Your task to perform on an android device: turn on notifications settings in the gmail app Image 0: 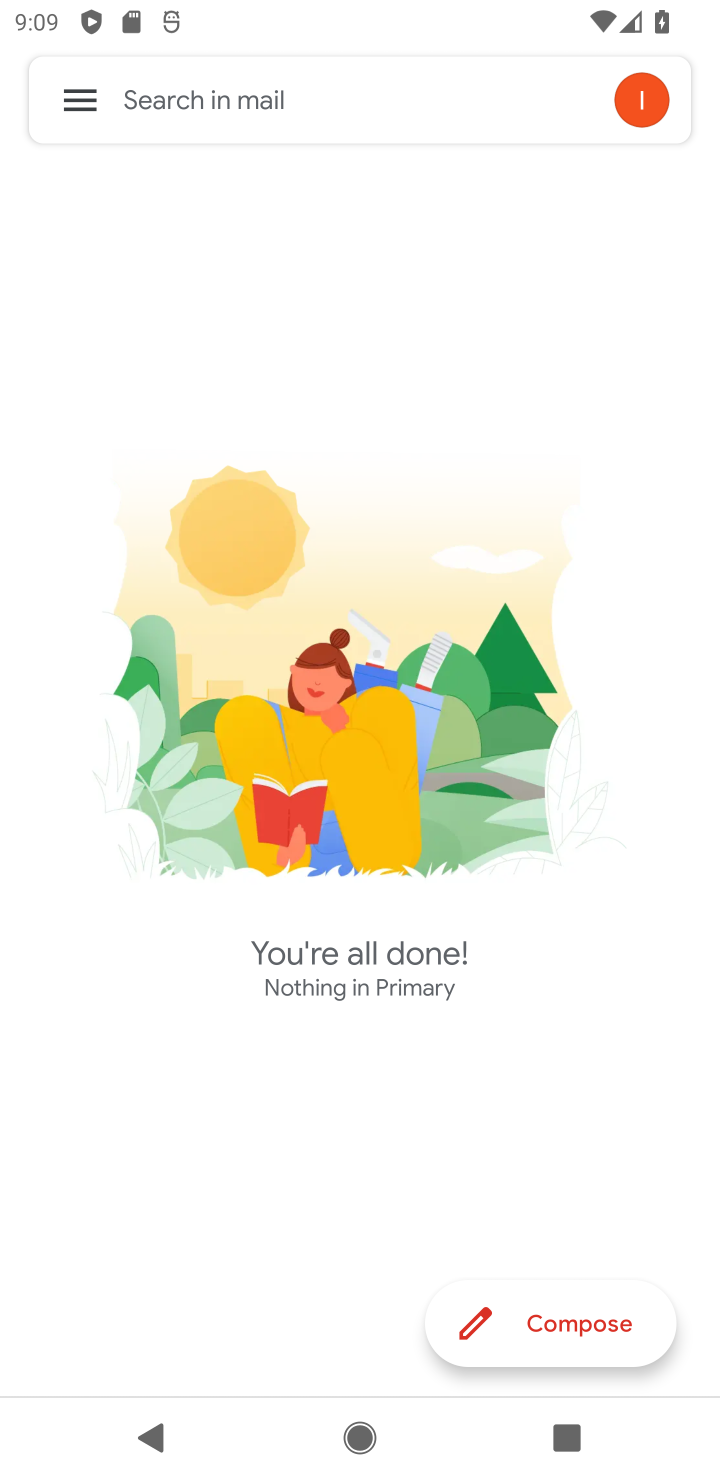
Step 0: press home button
Your task to perform on an android device: turn on notifications settings in the gmail app Image 1: 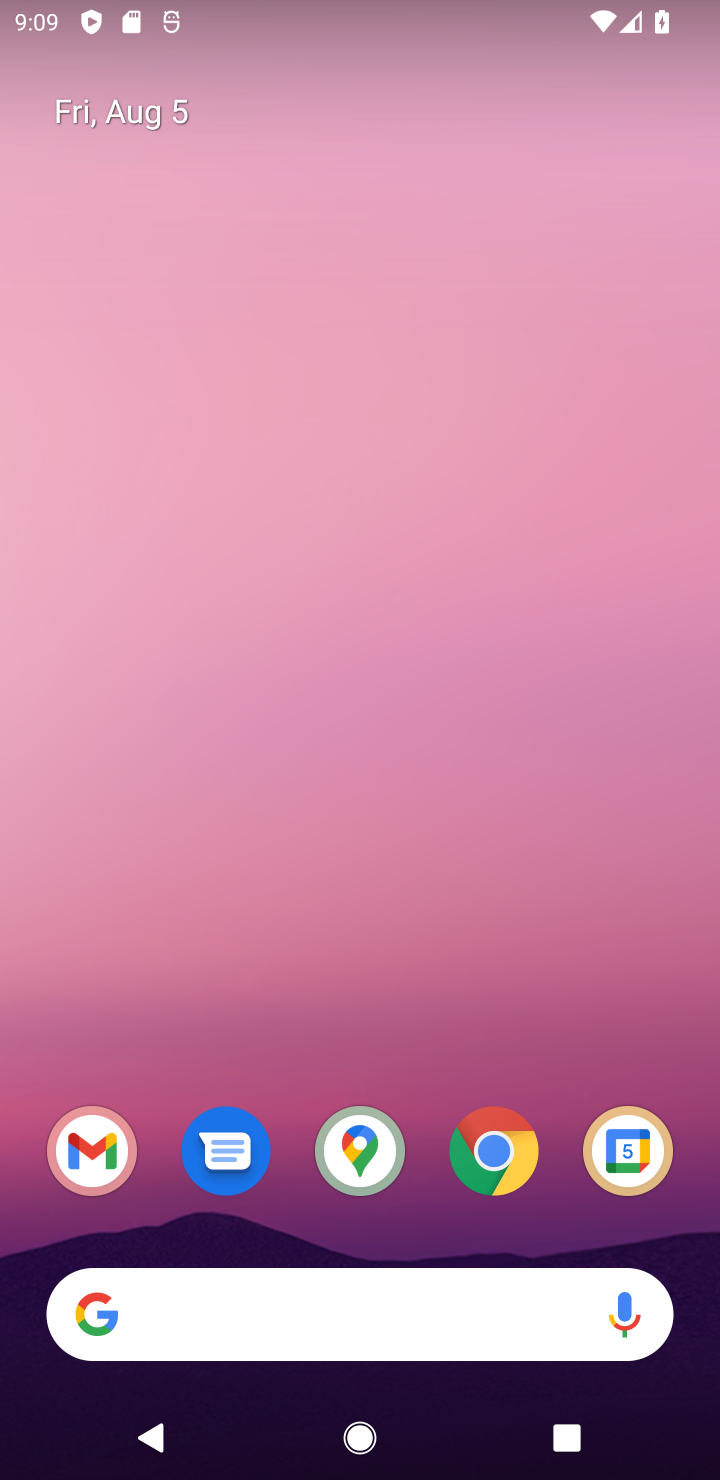
Step 1: click (76, 1143)
Your task to perform on an android device: turn on notifications settings in the gmail app Image 2: 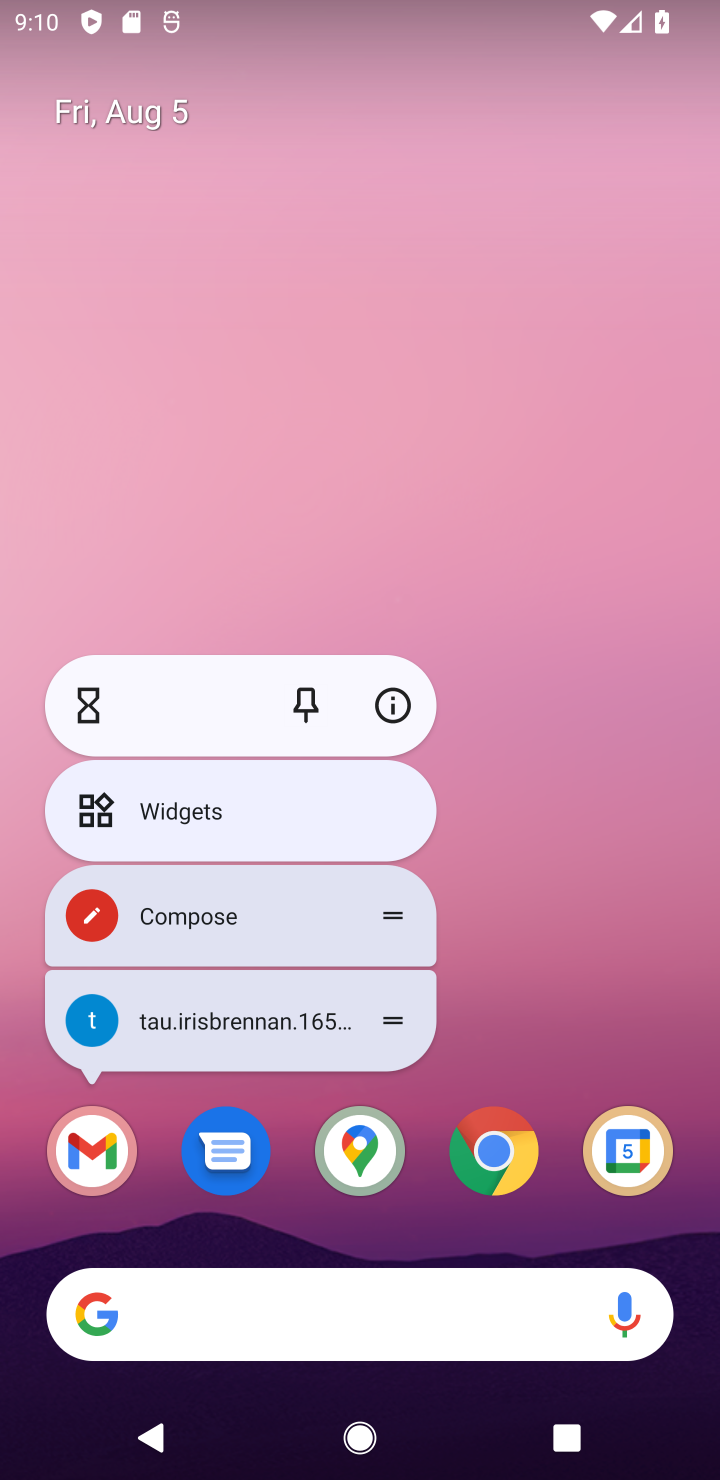
Step 2: click (94, 1157)
Your task to perform on an android device: turn on notifications settings in the gmail app Image 3: 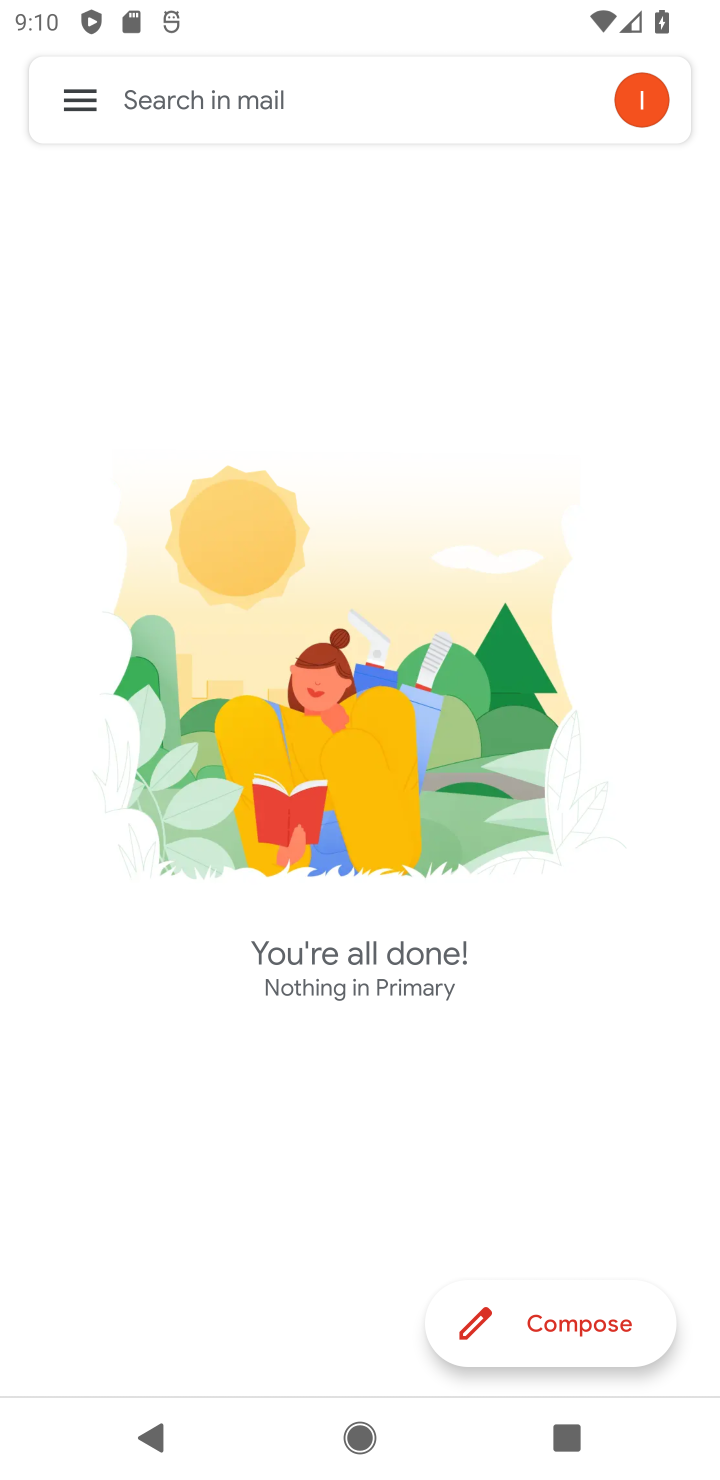
Step 3: click (75, 103)
Your task to perform on an android device: turn on notifications settings in the gmail app Image 4: 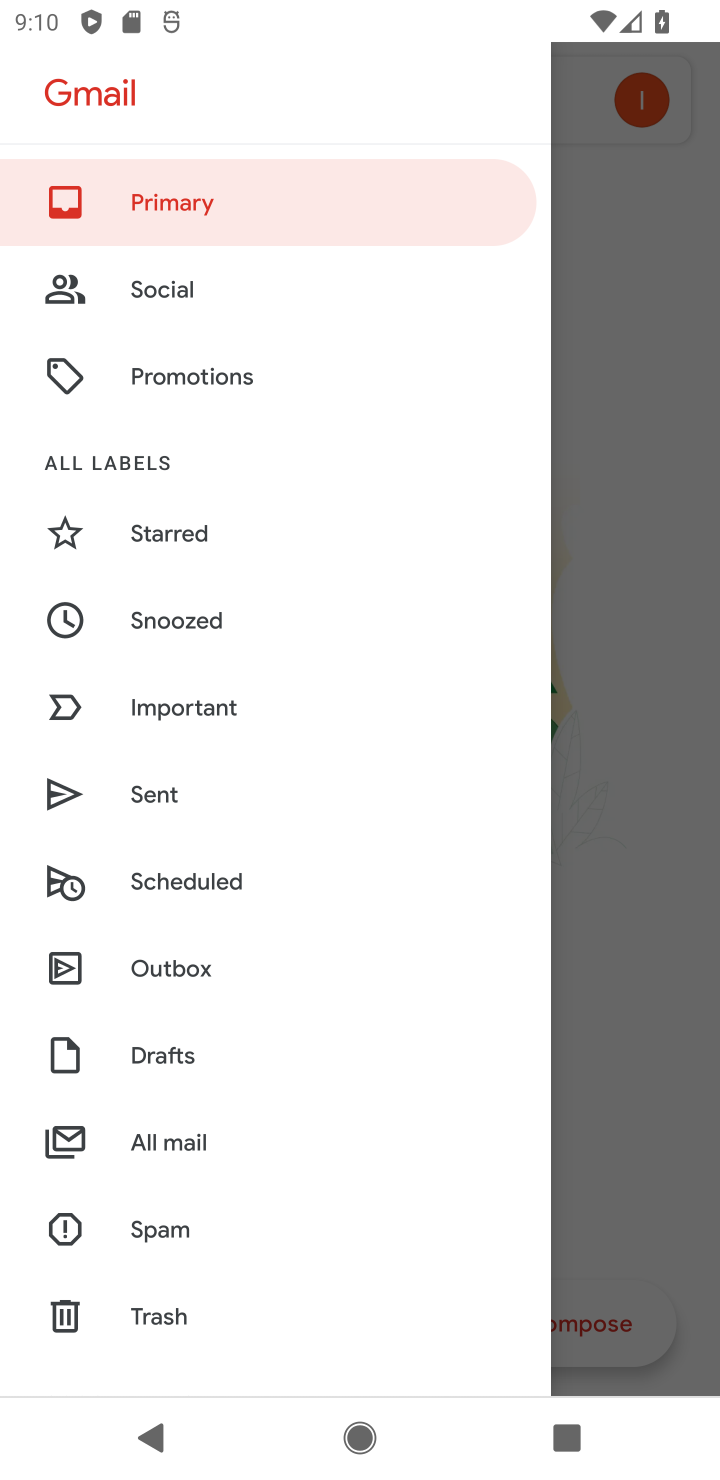
Step 4: drag from (198, 795) to (261, 356)
Your task to perform on an android device: turn on notifications settings in the gmail app Image 5: 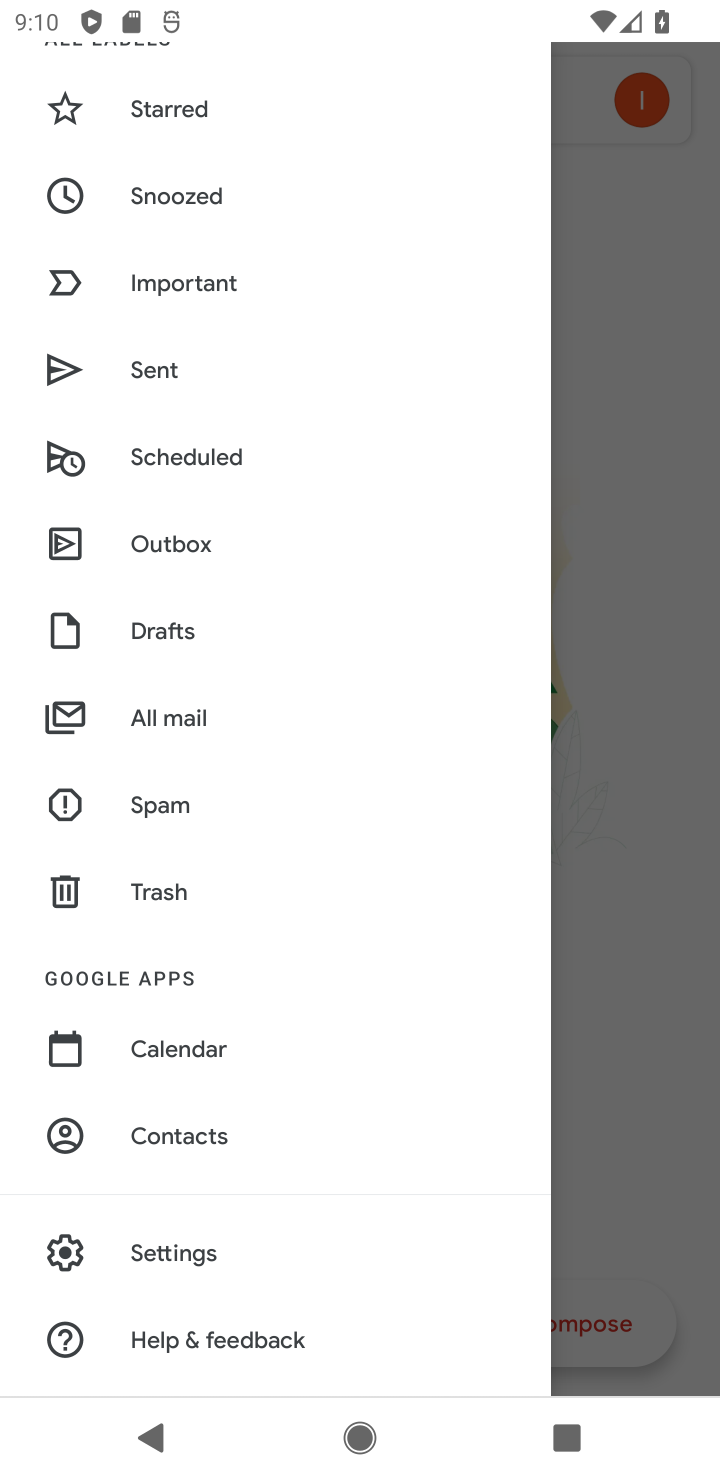
Step 5: click (175, 1250)
Your task to perform on an android device: turn on notifications settings in the gmail app Image 6: 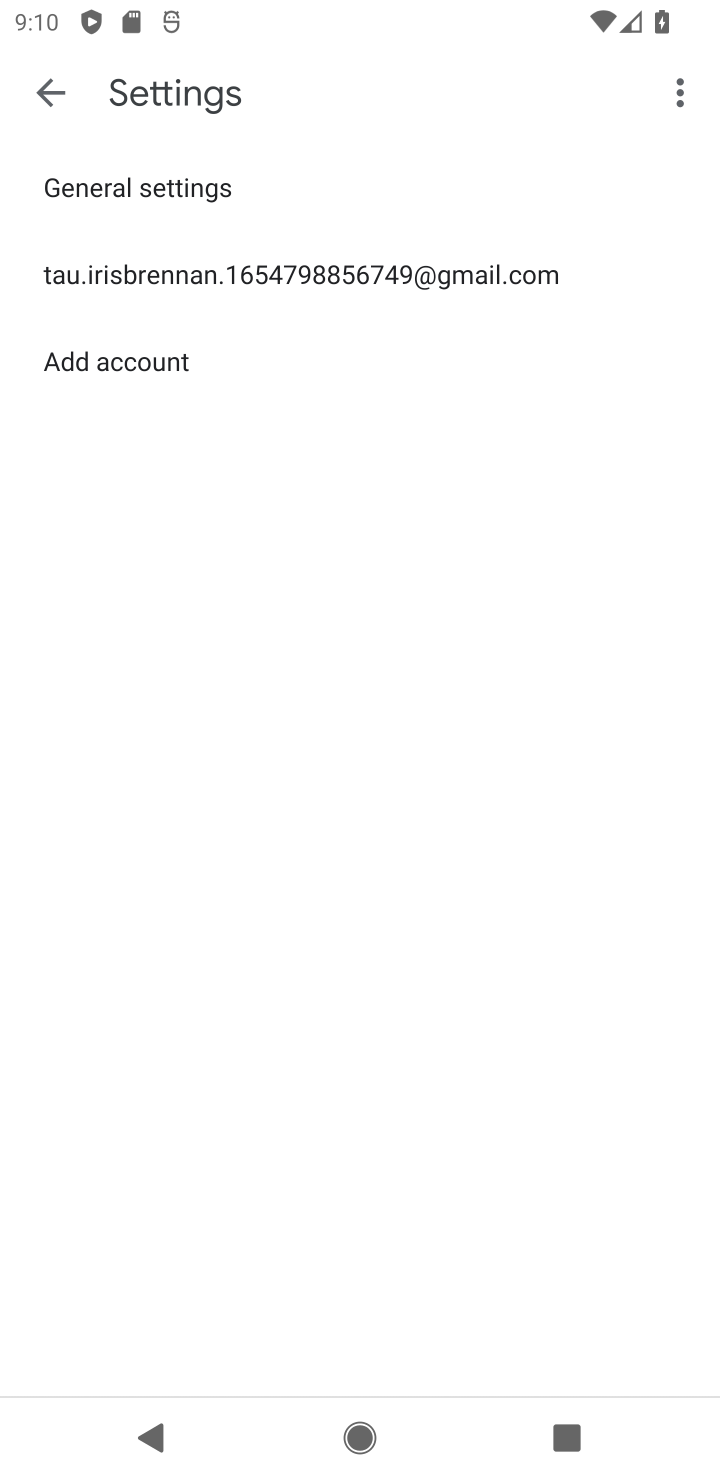
Step 6: click (96, 273)
Your task to perform on an android device: turn on notifications settings in the gmail app Image 7: 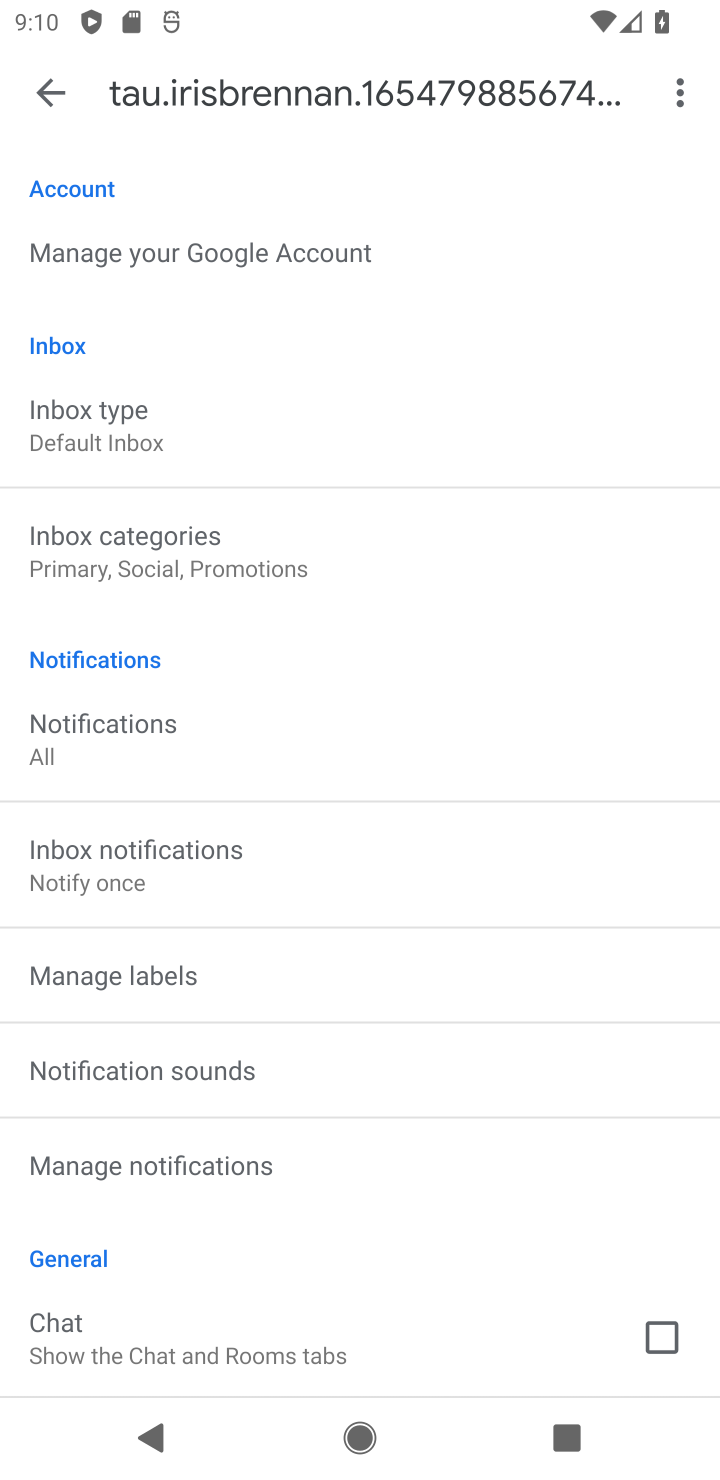
Step 7: click (150, 1175)
Your task to perform on an android device: turn on notifications settings in the gmail app Image 8: 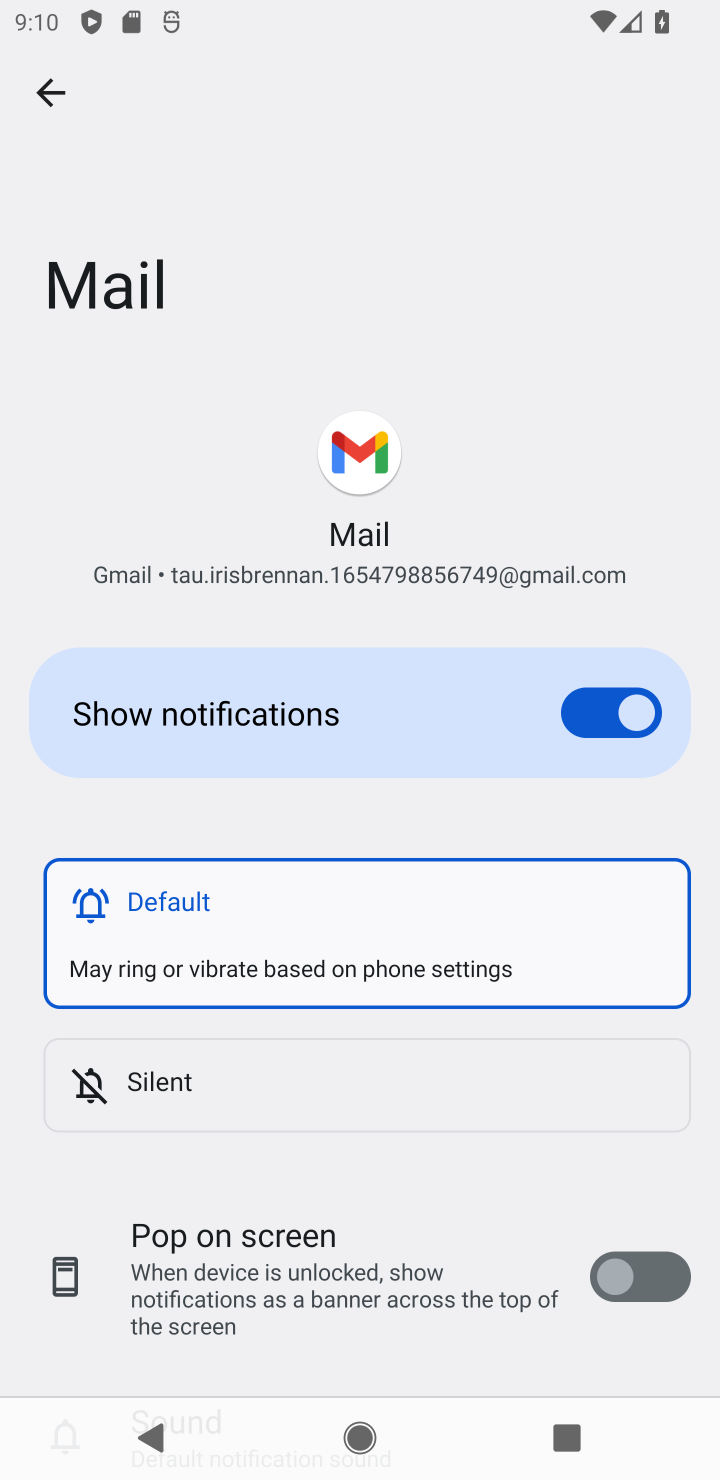
Step 8: task complete